Your task to perform on an android device: turn notification dots off Image 0: 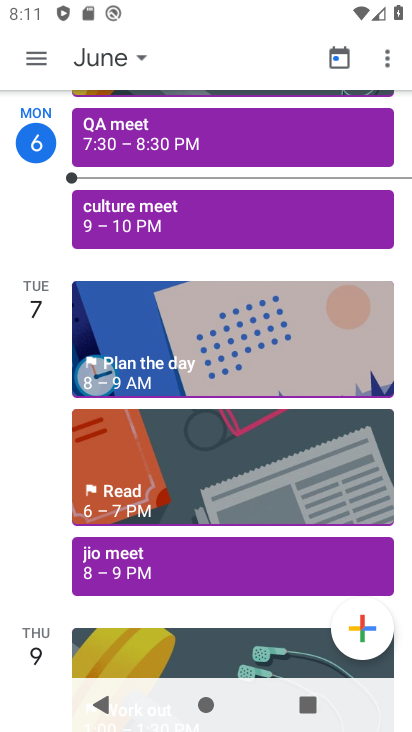
Step 0: press home button
Your task to perform on an android device: turn notification dots off Image 1: 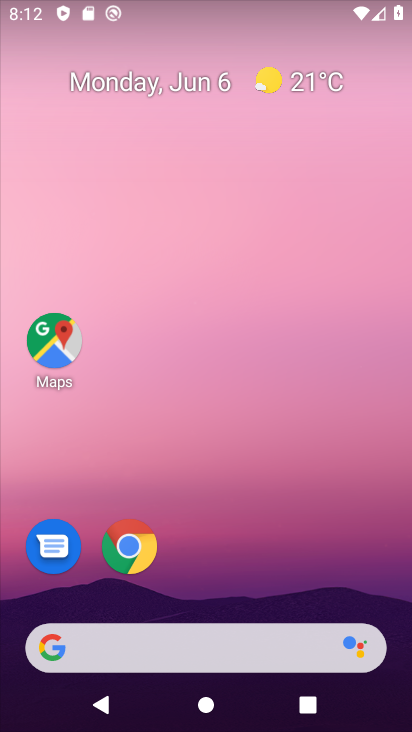
Step 1: drag from (267, 406) to (4, 261)
Your task to perform on an android device: turn notification dots off Image 2: 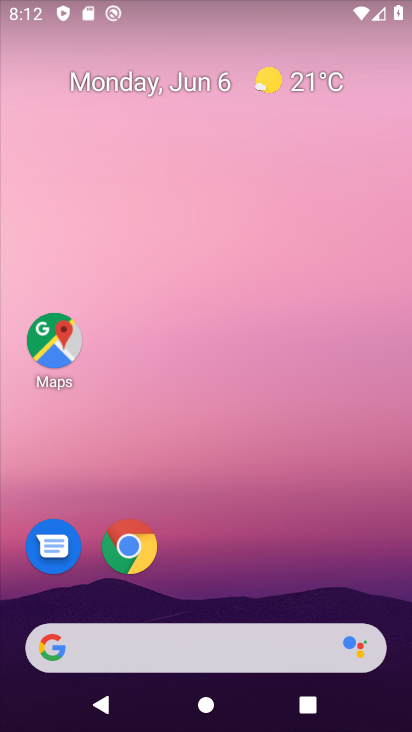
Step 2: drag from (351, 576) to (298, 9)
Your task to perform on an android device: turn notification dots off Image 3: 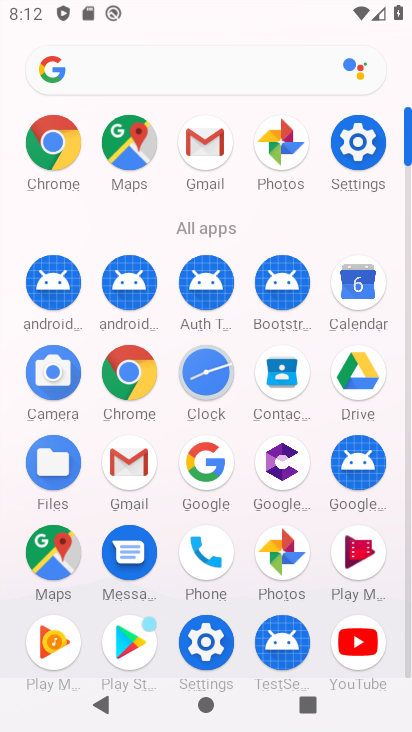
Step 3: click (357, 168)
Your task to perform on an android device: turn notification dots off Image 4: 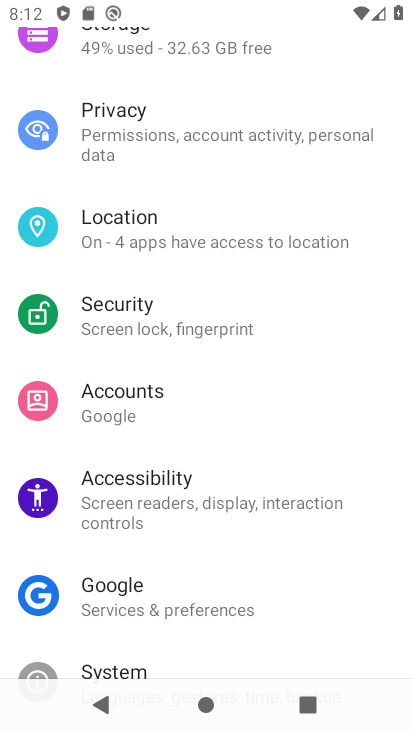
Step 4: drag from (242, 292) to (271, 644)
Your task to perform on an android device: turn notification dots off Image 5: 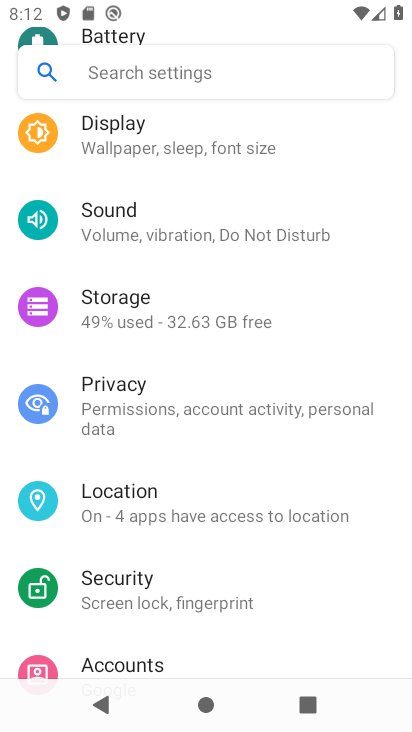
Step 5: drag from (249, 211) to (320, 593)
Your task to perform on an android device: turn notification dots off Image 6: 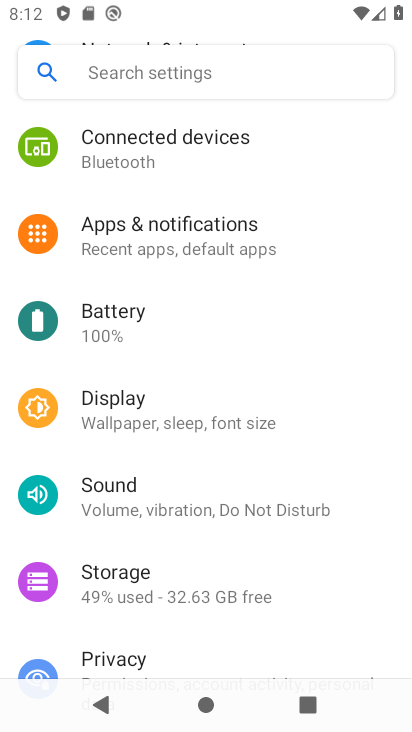
Step 6: drag from (218, 203) to (241, 562)
Your task to perform on an android device: turn notification dots off Image 7: 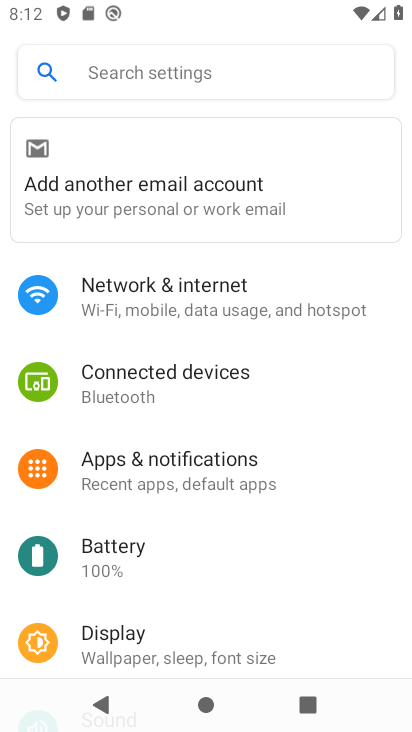
Step 7: click (207, 462)
Your task to perform on an android device: turn notification dots off Image 8: 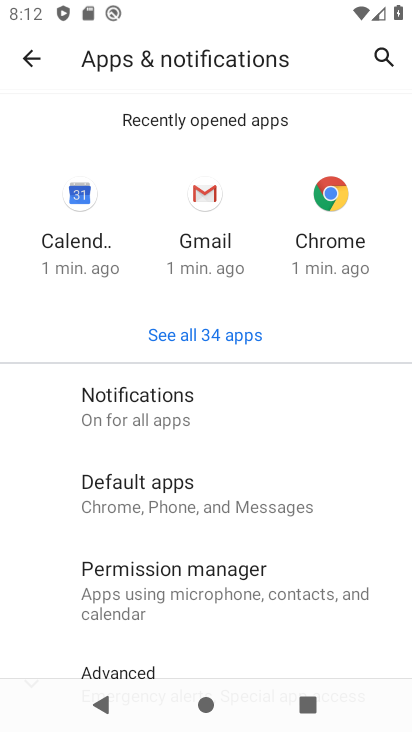
Step 8: click (151, 390)
Your task to perform on an android device: turn notification dots off Image 9: 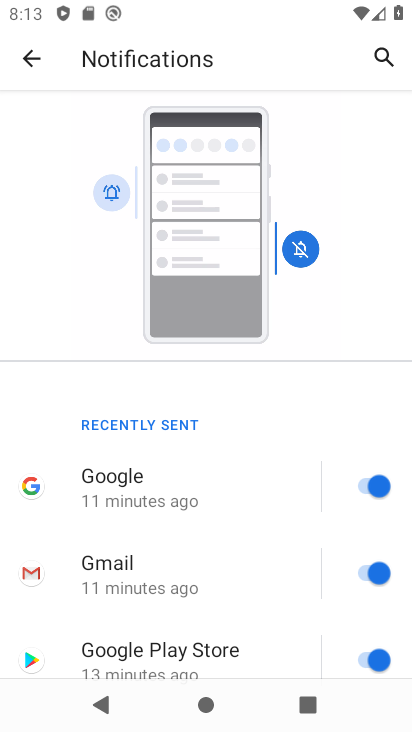
Step 9: drag from (131, 565) to (182, 8)
Your task to perform on an android device: turn notification dots off Image 10: 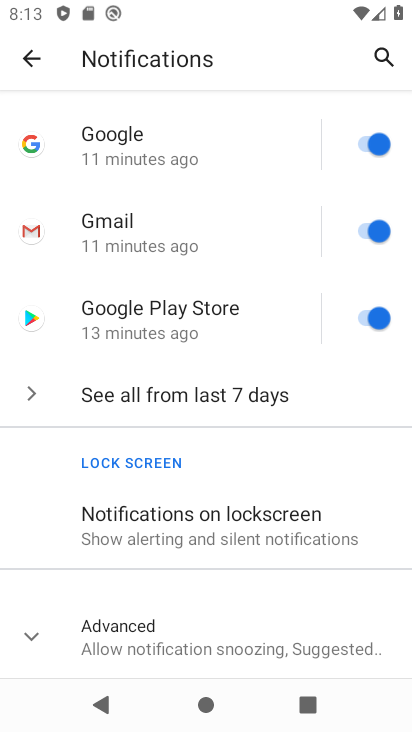
Step 10: drag from (246, 586) to (321, 266)
Your task to perform on an android device: turn notification dots off Image 11: 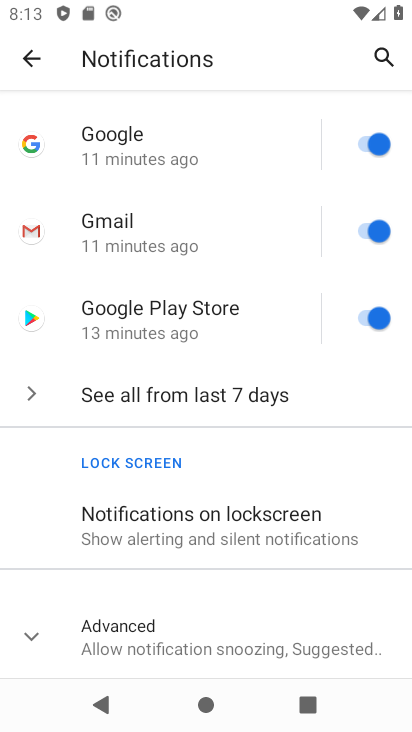
Step 11: click (223, 638)
Your task to perform on an android device: turn notification dots off Image 12: 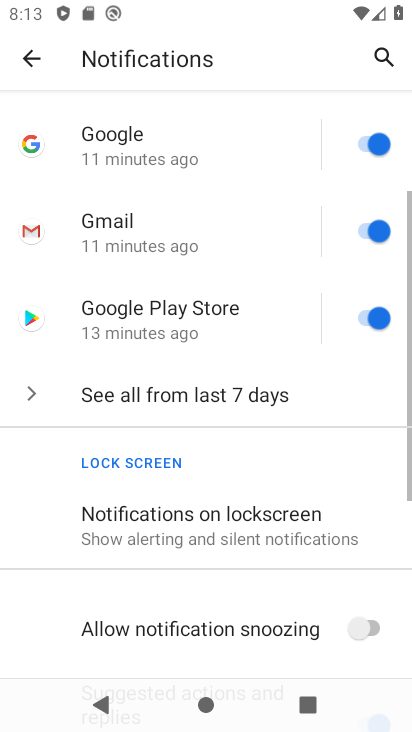
Step 12: drag from (223, 637) to (220, 41)
Your task to perform on an android device: turn notification dots off Image 13: 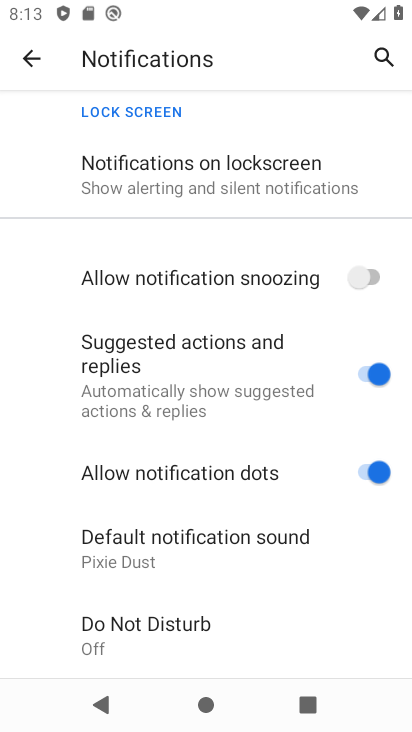
Step 13: click (363, 473)
Your task to perform on an android device: turn notification dots off Image 14: 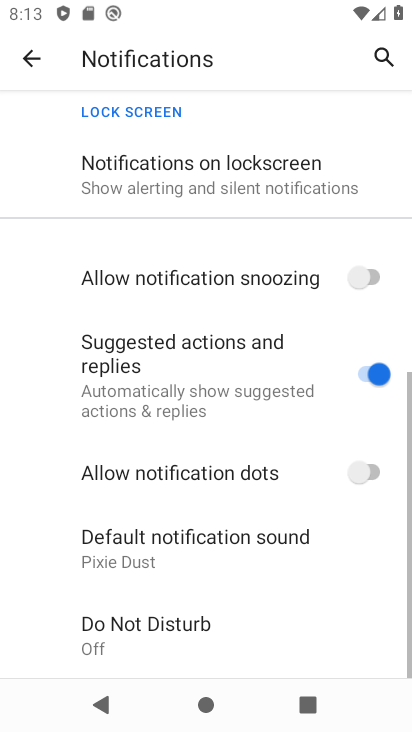
Step 14: task complete